Your task to perform on an android device: Go to eBay Image 0: 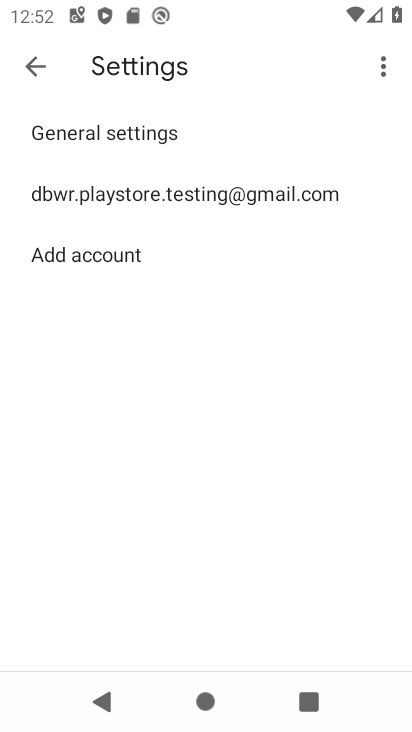
Step 0: press home button
Your task to perform on an android device: Go to eBay Image 1: 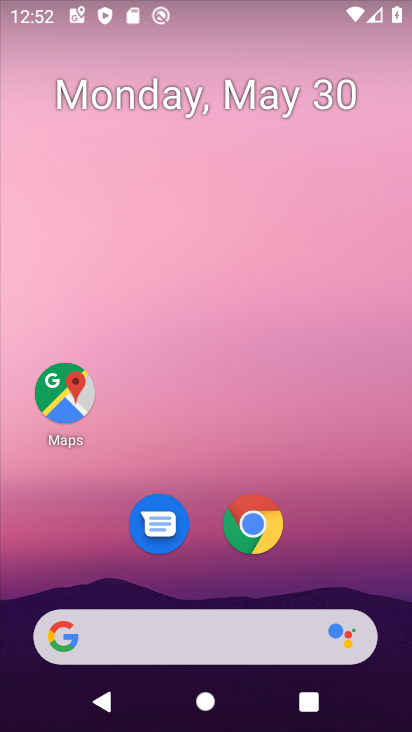
Step 1: click (208, 627)
Your task to perform on an android device: Go to eBay Image 2: 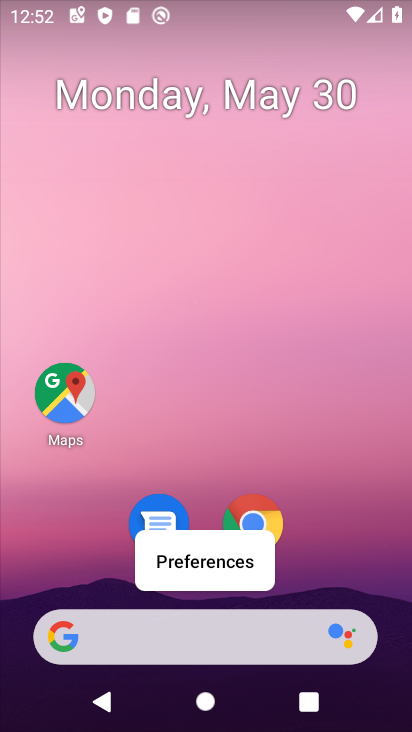
Step 2: click (207, 646)
Your task to perform on an android device: Go to eBay Image 3: 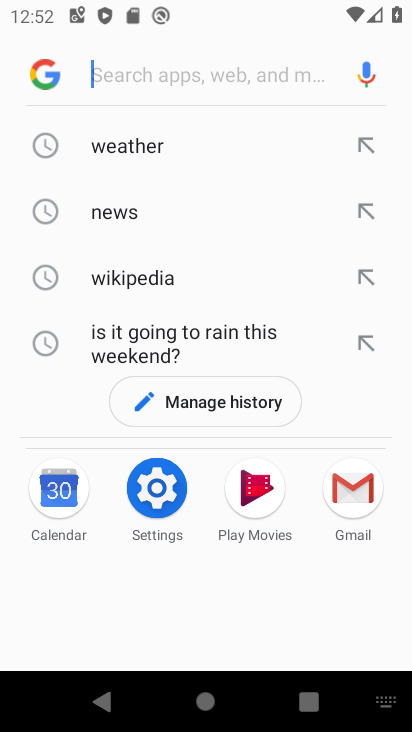
Step 3: type "ebay"
Your task to perform on an android device: Go to eBay Image 4: 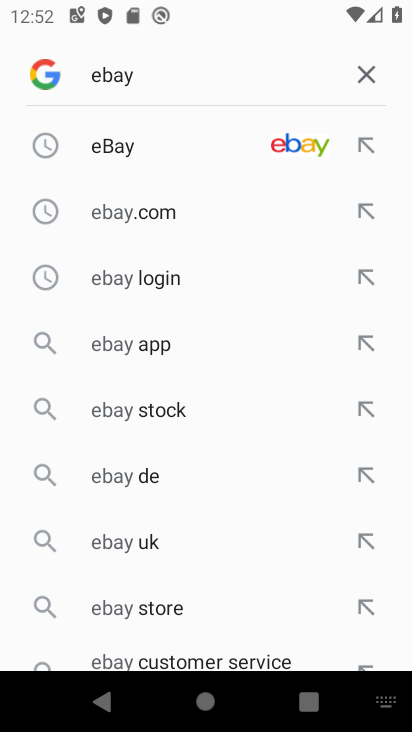
Step 4: click (105, 140)
Your task to perform on an android device: Go to eBay Image 5: 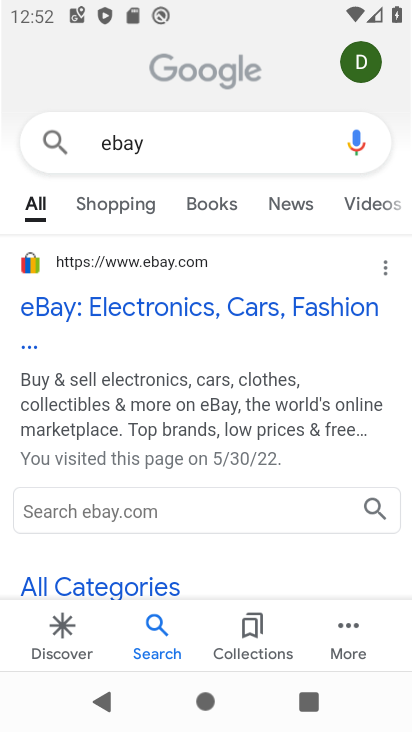
Step 5: click (55, 300)
Your task to perform on an android device: Go to eBay Image 6: 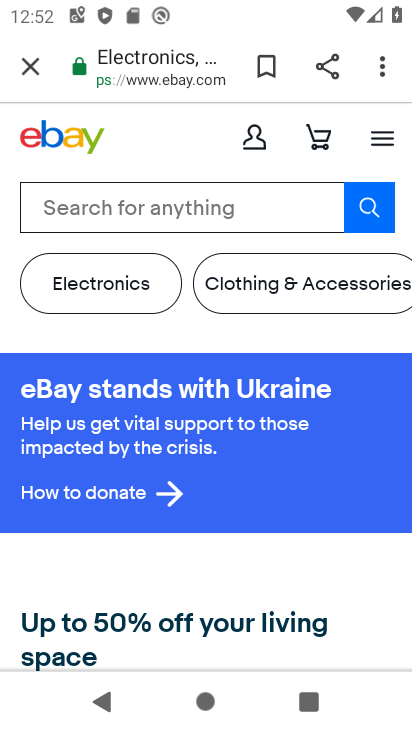
Step 6: task complete